Your task to perform on an android device: Open calendar and show me the first week of next month Image 0: 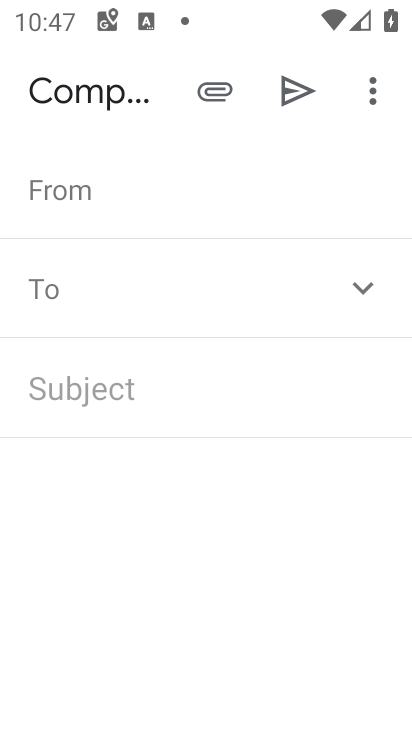
Step 0: drag from (238, 627) to (238, 273)
Your task to perform on an android device: Open calendar and show me the first week of next month Image 1: 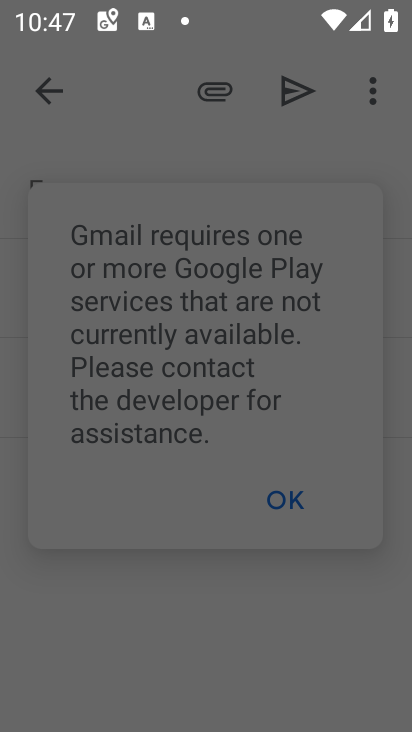
Step 1: click (218, 41)
Your task to perform on an android device: Open calendar and show me the first week of next month Image 2: 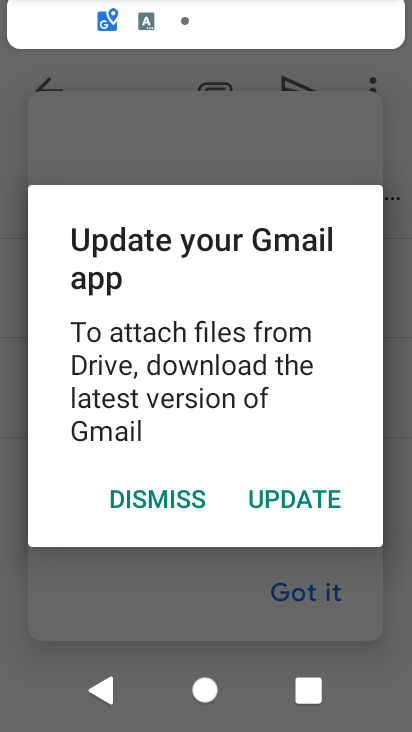
Step 2: press home button
Your task to perform on an android device: Open calendar and show me the first week of next month Image 3: 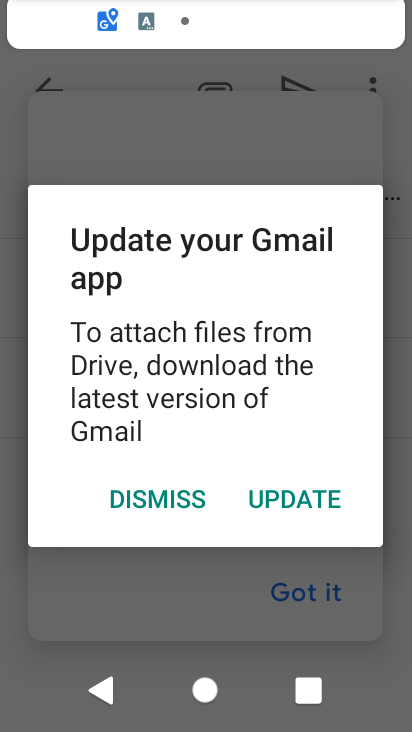
Step 3: drag from (212, 9) to (402, 661)
Your task to perform on an android device: Open calendar and show me the first week of next month Image 4: 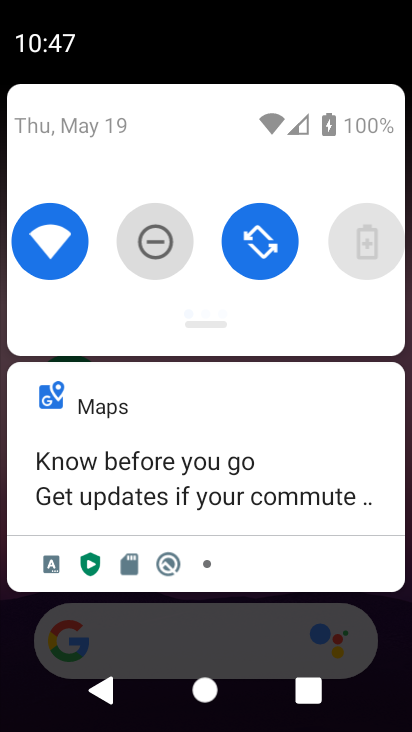
Step 4: drag from (205, 596) to (161, 322)
Your task to perform on an android device: Open calendar and show me the first week of next month Image 5: 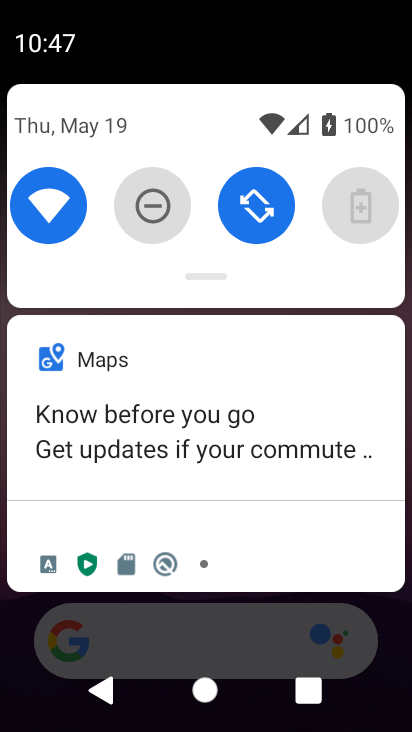
Step 5: drag from (275, 639) to (223, 96)
Your task to perform on an android device: Open calendar and show me the first week of next month Image 6: 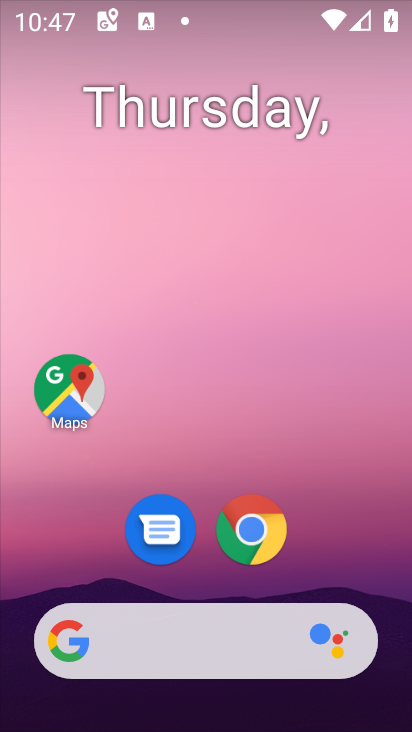
Step 6: drag from (214, 488) to (141, 9)
Your task to perform on an android device: Open calendar and show me the first week of next month Image 7: 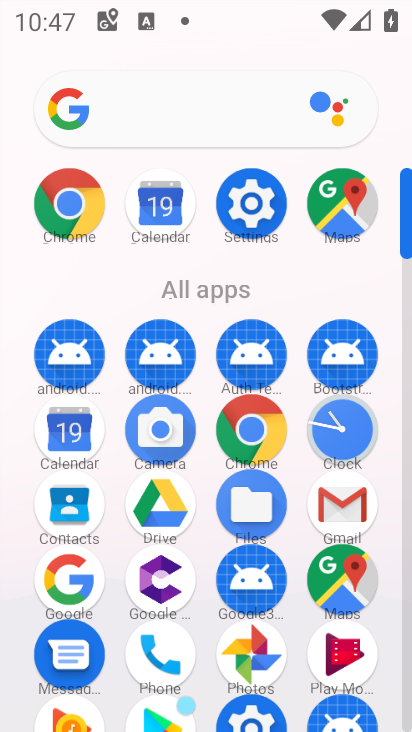
Step 7: click (73, 424)
Your task to perform on an android device: Open calendar and show me the first week of next month Image 8: 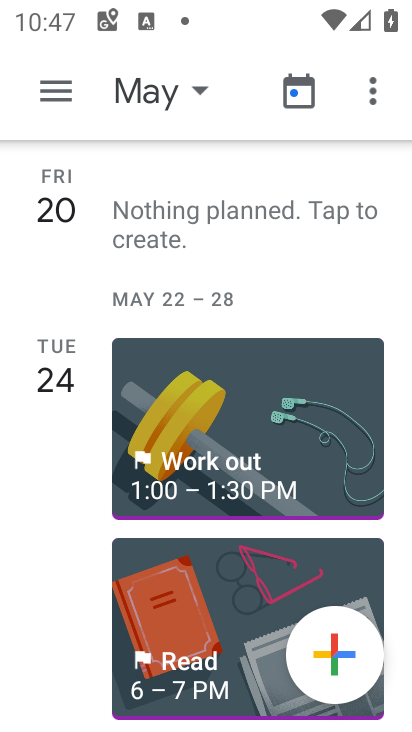
Step 8: click (161, 110)
Your task to perform on an android device: Open calendar and show me the first week of next month Image 9: 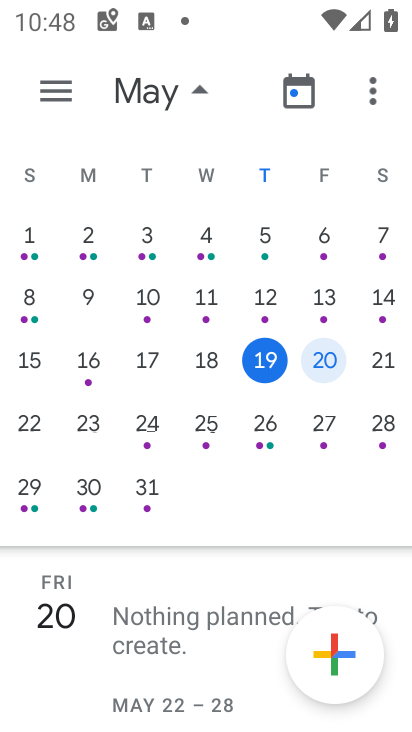
Step 9: drag from (379, 421) to (11, 423)
Your task to perform on an android device: Open calendar and show me the first week of next month Image 10: 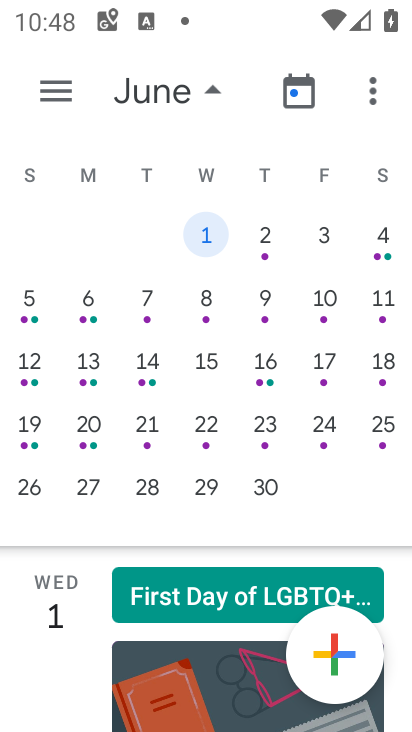
Step 10: click (26, 314)
Your task to perform on an android device: Open calendar and show me the first week of next month Image 11: 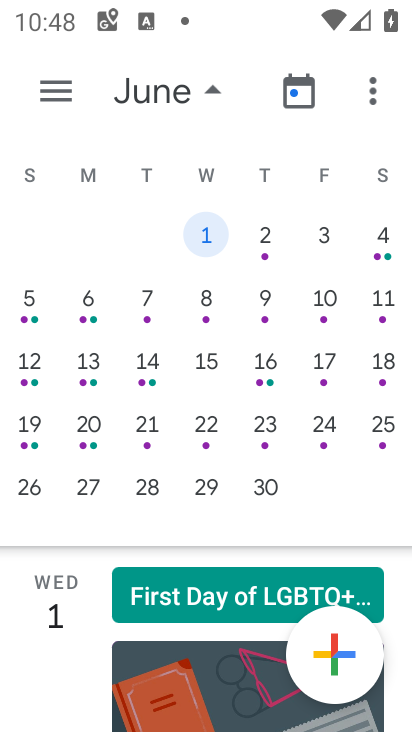
Step 11: click (38, 323)
Your task to perform on an android device: Open calendar and show me the first week of next month Image 12: 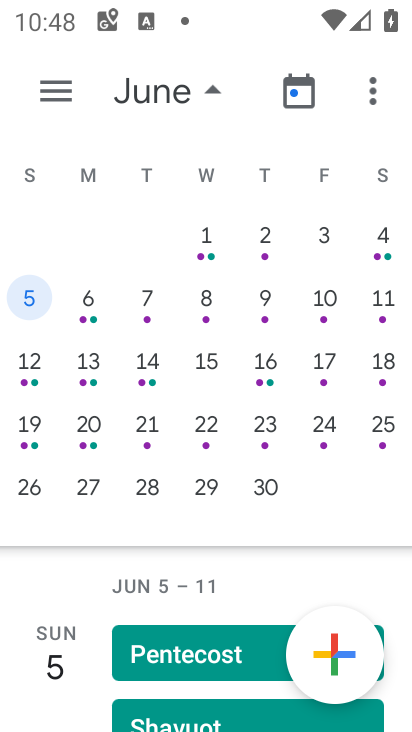
Step 12: task complete